Your task to perform on an android device: add a contact Image 0: 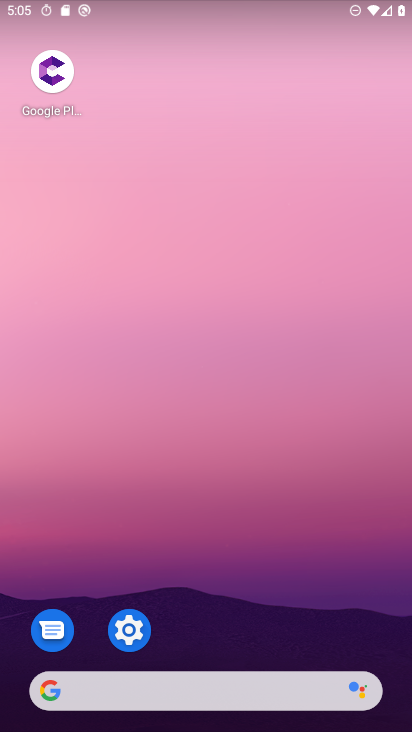
Step 0: drag from (291, 506) to (291, 2)
Your task to perform on an android device: add a contact Image 1: 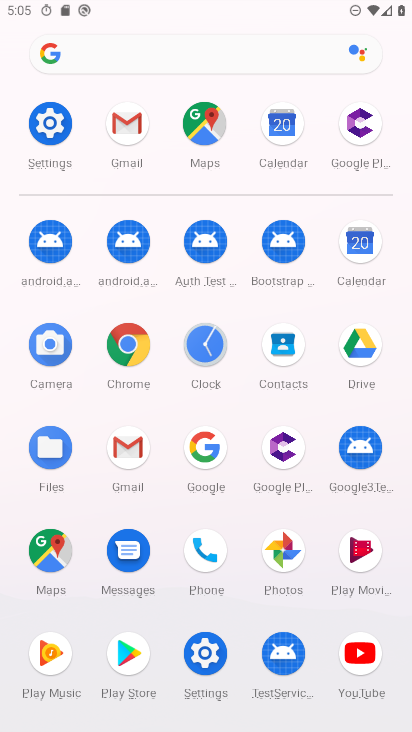
Step 1: click (283, 355)
Your task to perform on an android device: add a contact Image 2: 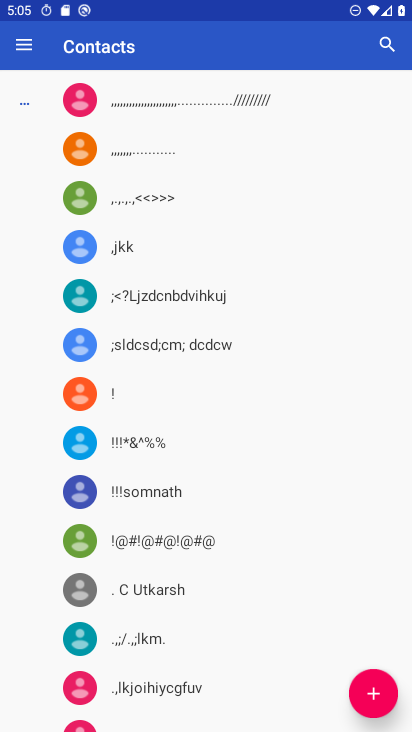
Step 2: click (375, 688)
Your task to perform on an android device: add a contact Image 3: 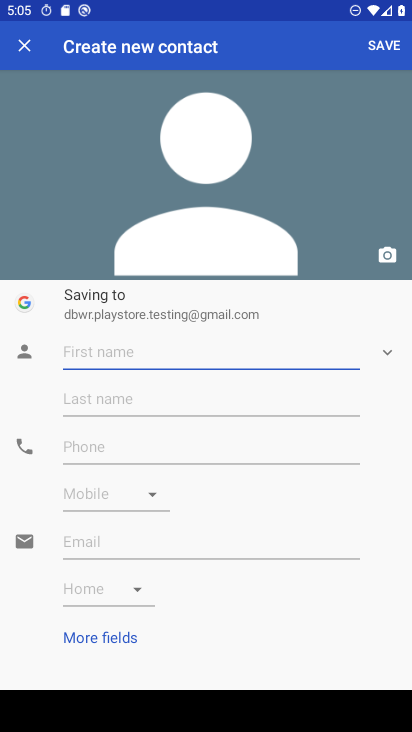
Step 3: click (241, 357)
Your task to perform on an android device: add a contact Image 4: 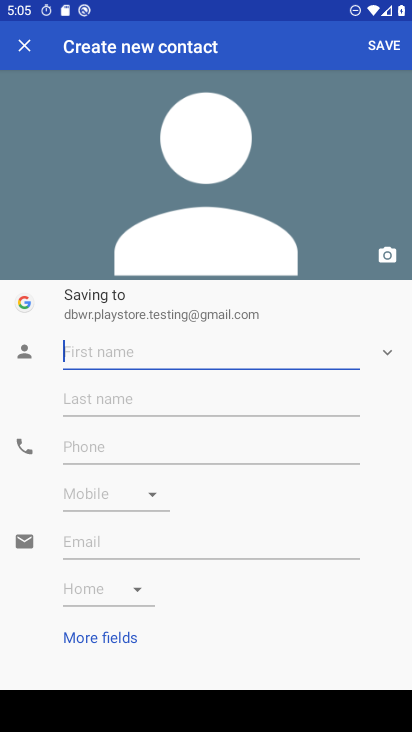
Step 4: click (115, 344)
Your task to perform on an android device: add a contact Image 5: 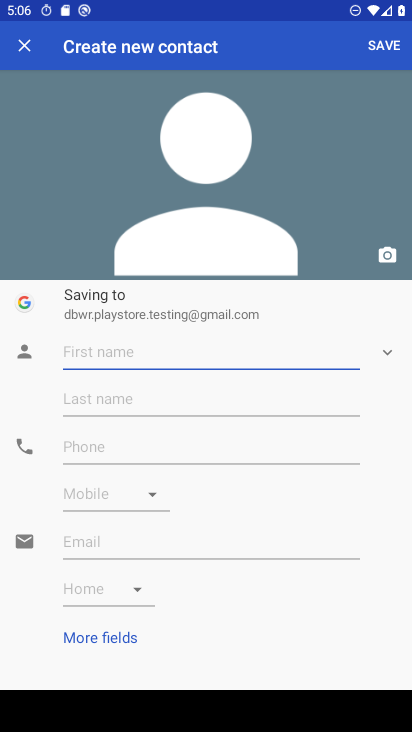
Step 5: type "jhgjhjhgjhgj"
Your task to perform on an android device: add a contact Image 6: 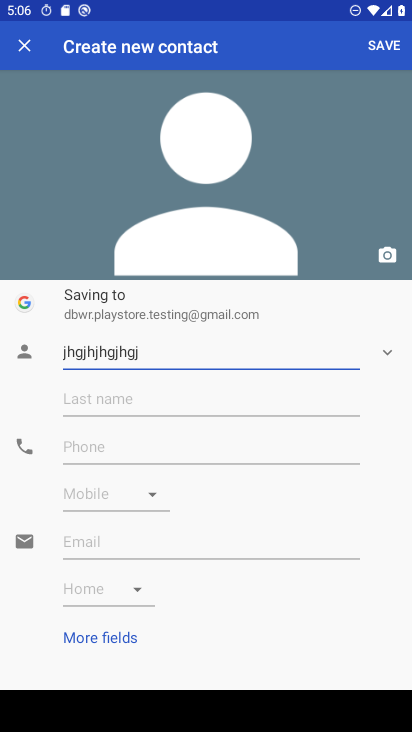
Step 6: click (111, 450)
Your task to perform on an android device: add a contact Image 7: 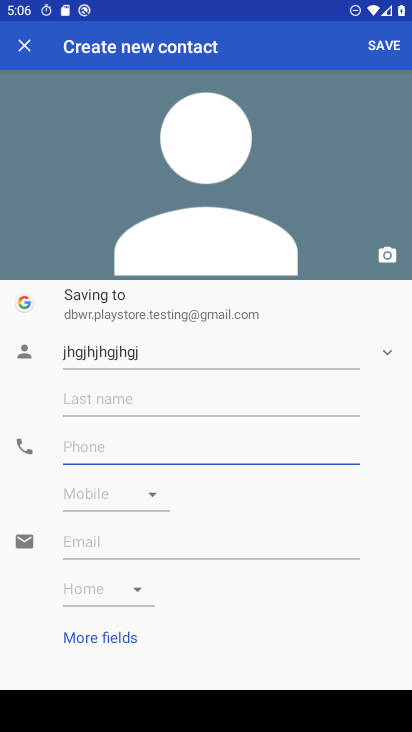
Step 7: type "97987986868"
Your task to perform on an android device: add a contact Image 8: 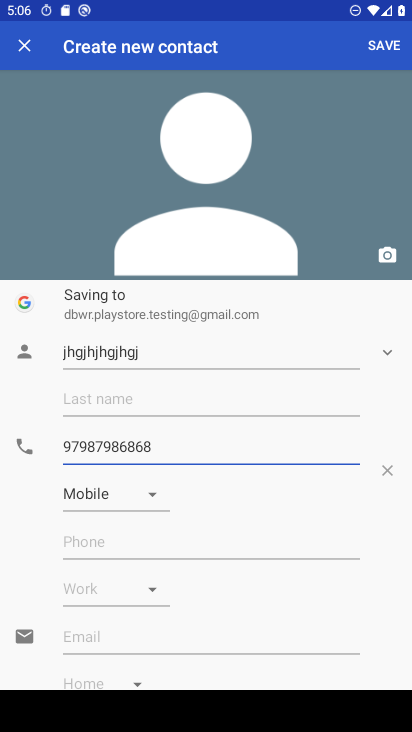
Step 8: click (379, 42)
Your task to perform on an android device: add a contact Image 9: 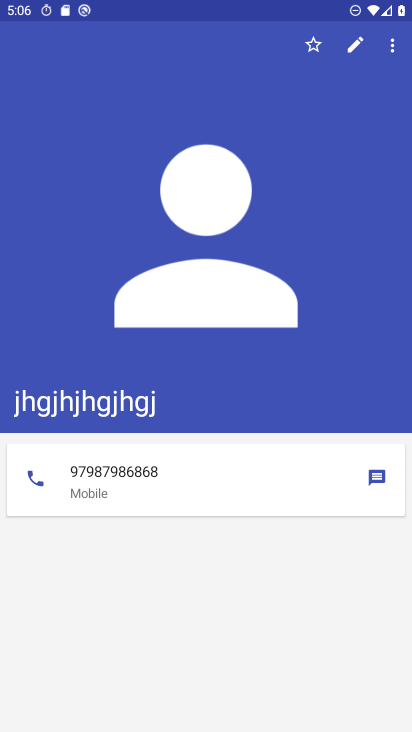
Step 9: task complete